Your task to perform on an android device: stop showing notifications on the lock screen Image 0: 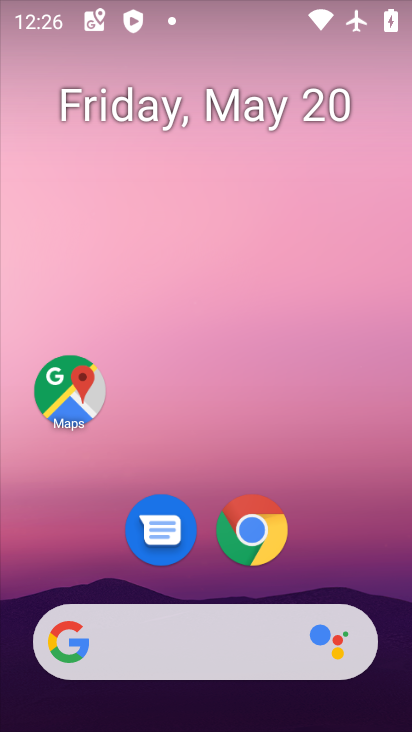
Step 0: drag from (284, 610) to (327, 372)
Your task to perform on an android device: stop showing notifications on the lock screen Image 1: 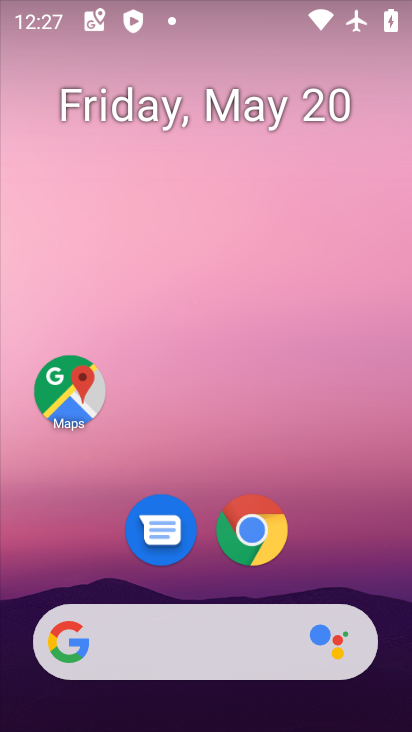
Step 1: drag from (214, 717) to (282, 132)
Your task to perform on an android device: stop showing notifications on the lock screen Image 2: 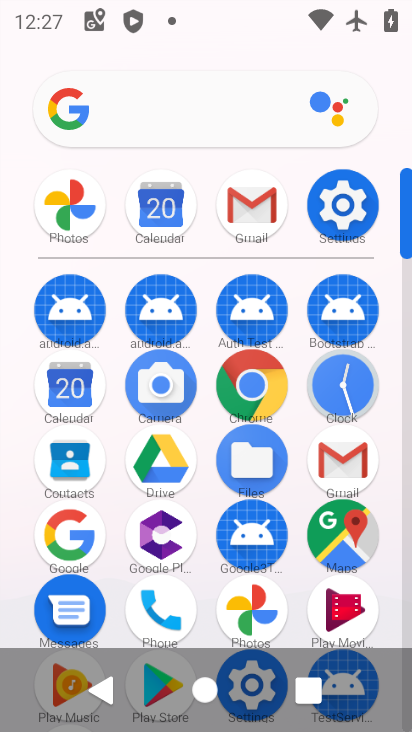
Step 2: click (340, 199)
Your task to perform on an android device: stop showing notifications on the lock screen Image 3: 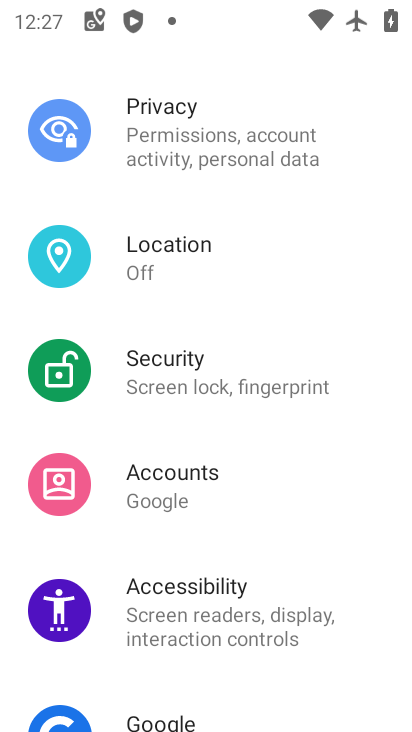
Step 3: drag from (297, 169) to (247, 598)
Your task to perform on an android device: stop showing notifications on the lock screen Image 4: 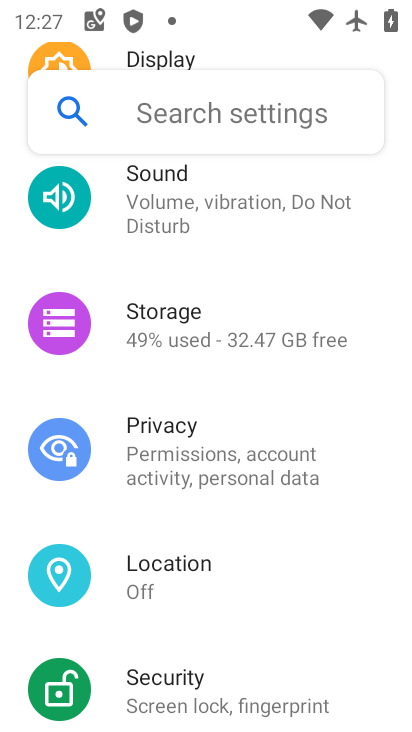
Step 4: drag from (293, 247) to (244, 699)
Your task to perform on an android device: stop showing notifications on the lock screen Image 5: 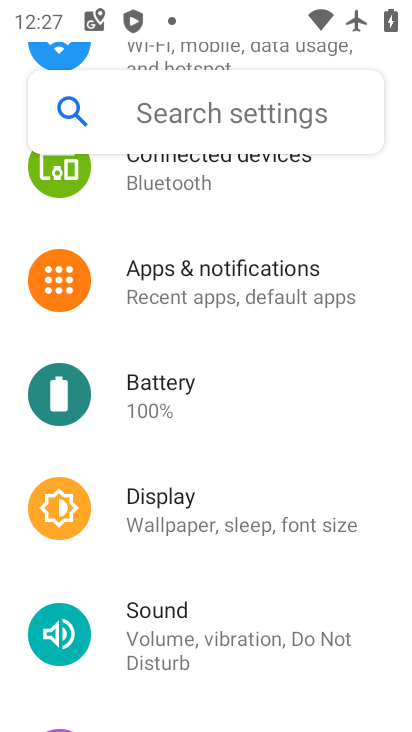
Step 5: click (257, 282)
Your task to perform on an android device: stop showing notifications on the lock screen Image 6: 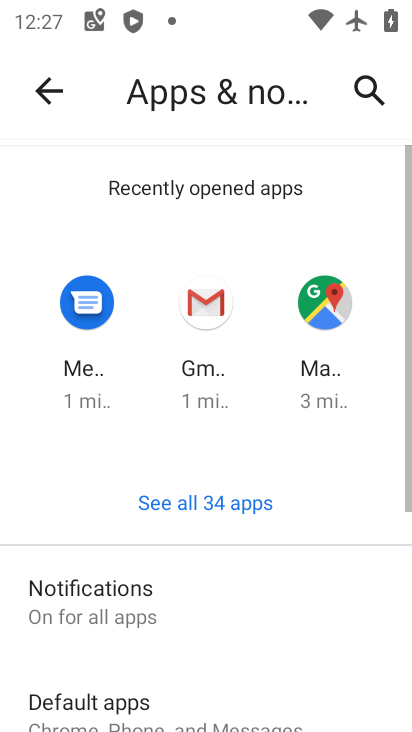
Step 6: click (139, 597)
Your task to perform on an android device: stop showing notifications on the lock screen Image 7: 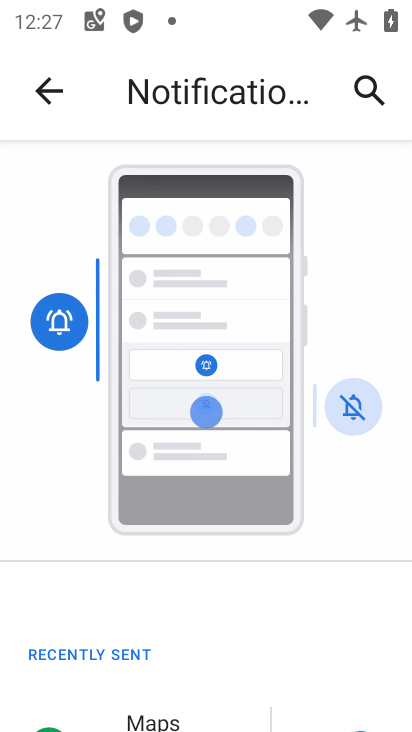
Step 7: drag from (232, 674) to (214, 123)
Your task to perform on an android device: stop showing notifications on the lock screen Image 8: 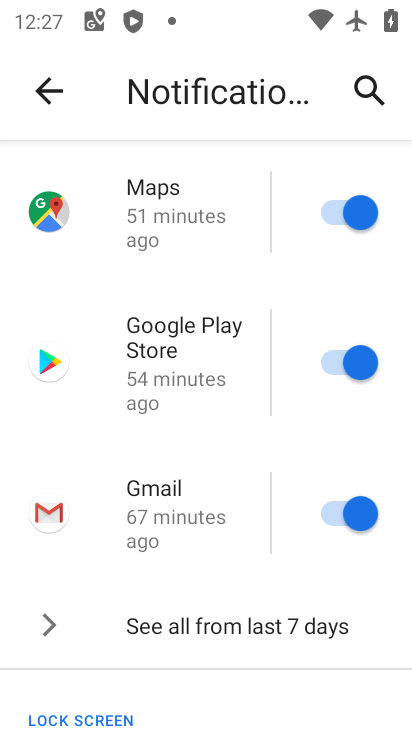
Step 8: drag from (209, 673) to (235, 162)
Your task to perform on an android device: stop showing notifications on the lock screen Image 9: 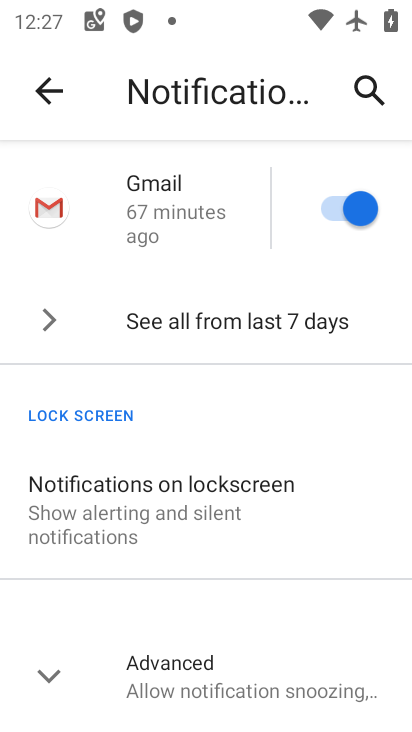
Step 9: click (174, 496)
Your task to perform on an android device: stop showing notifications on the lock screen Image 10: 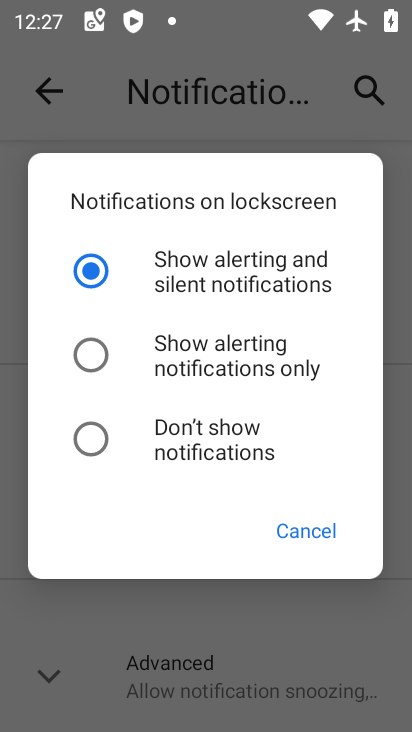
Step 10: click (217, 438)
Your task to perform on an android device: stop showing notifications on the lock screen Image 11: 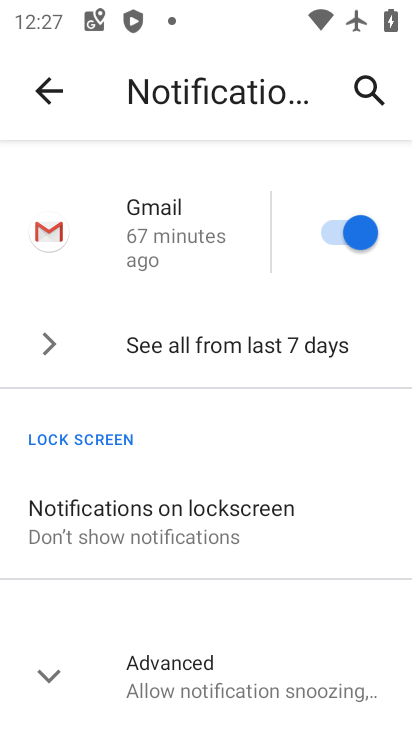
Step 11: task complete